Your task to perform on an android device: Add "jbl flip 4" to the cart on newegg Image 0: 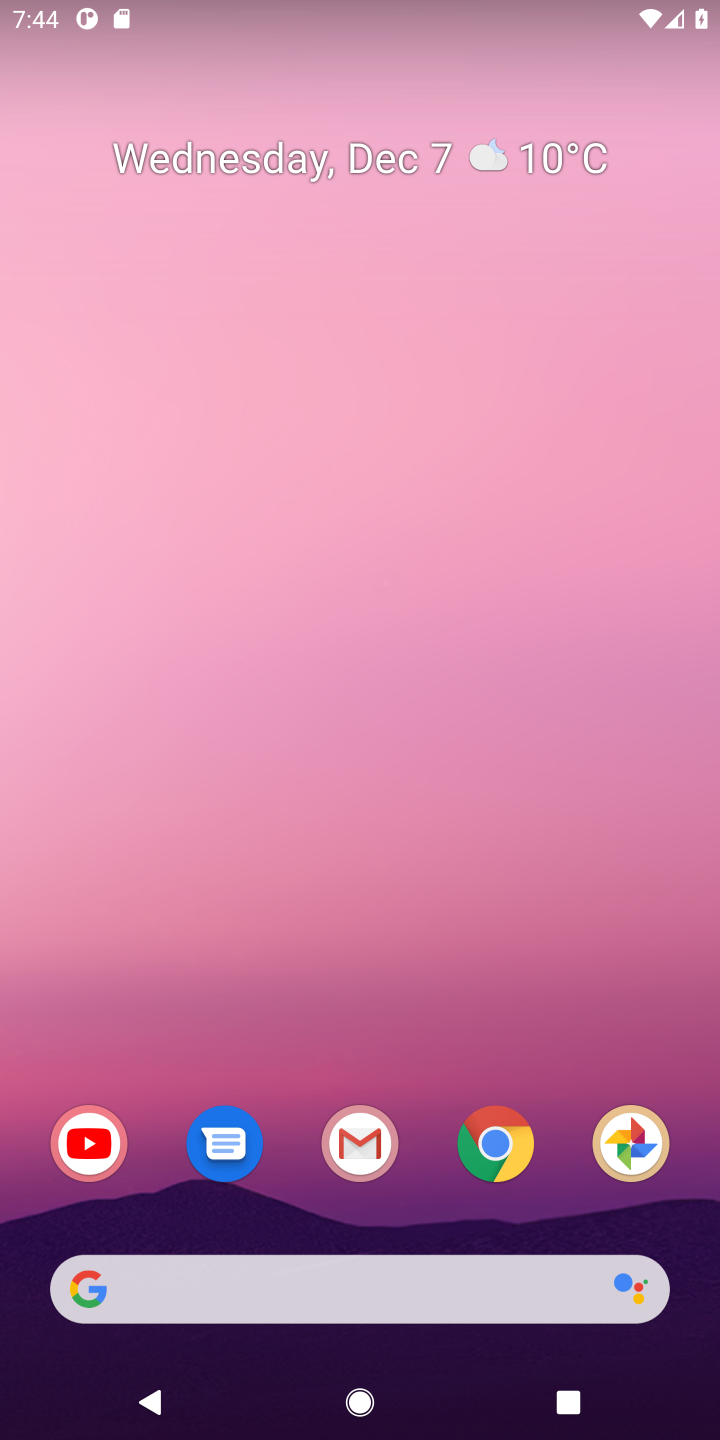
Step 0: press home button
Your task to perform on an android device: Add "jbl flip 4" to the cart on newegg Image 1: 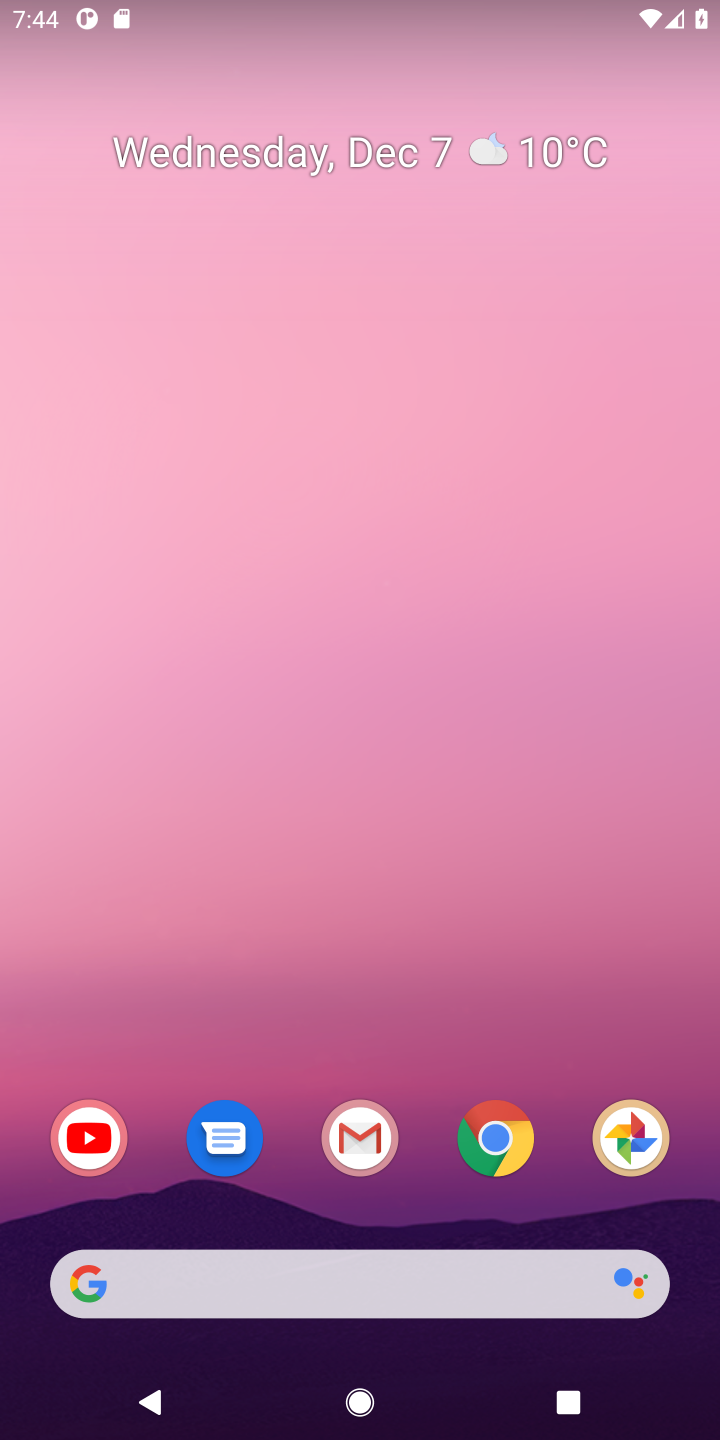
Step 1: click (129, 1280)
Your task to perform on an android device: Add "jbl flip 4" to the cart on newegg Image 2: 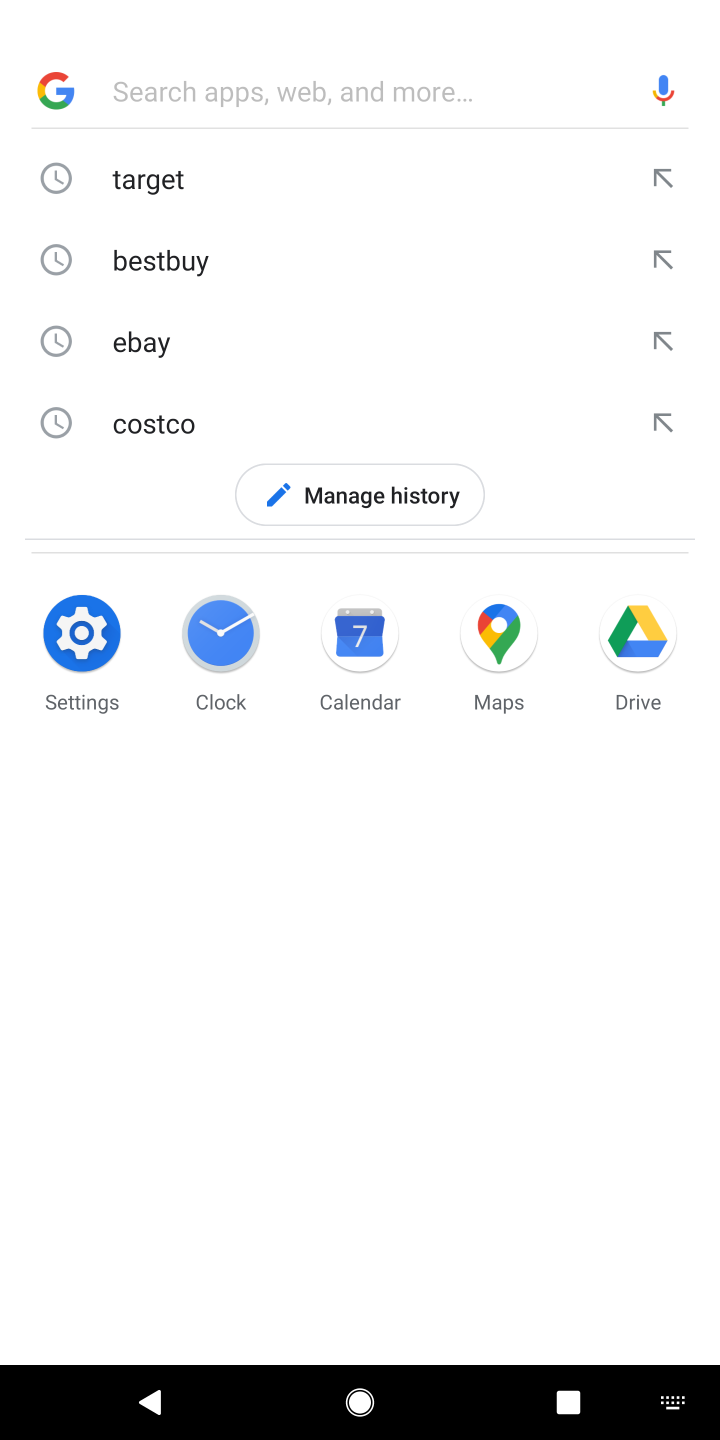
Step 2: type "newegg"
Your task to perform on an android device: Add "jbl flip 4" to the cart on newegg Image 3: 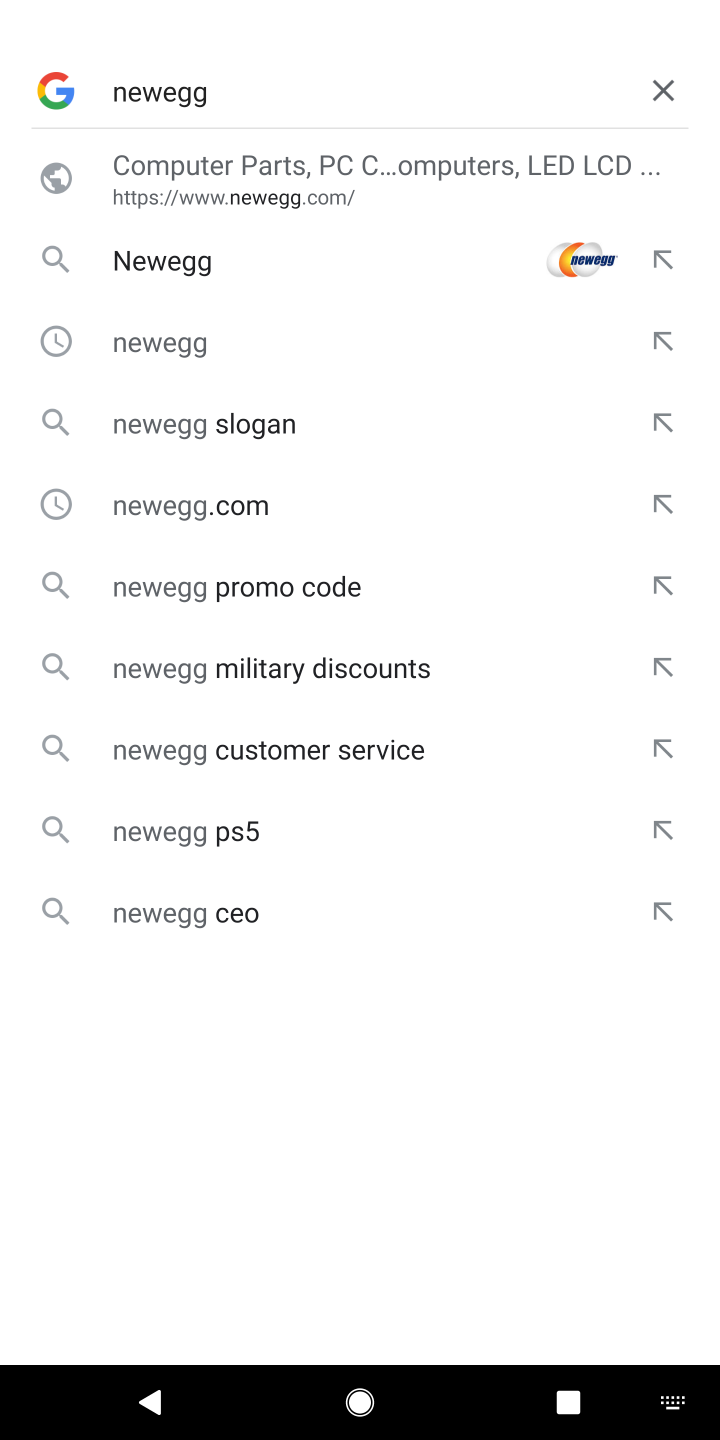
Step 3: press enter
Your task to perform on an android device: Add "jbl flip 4" to the cart on newegg Image 4: 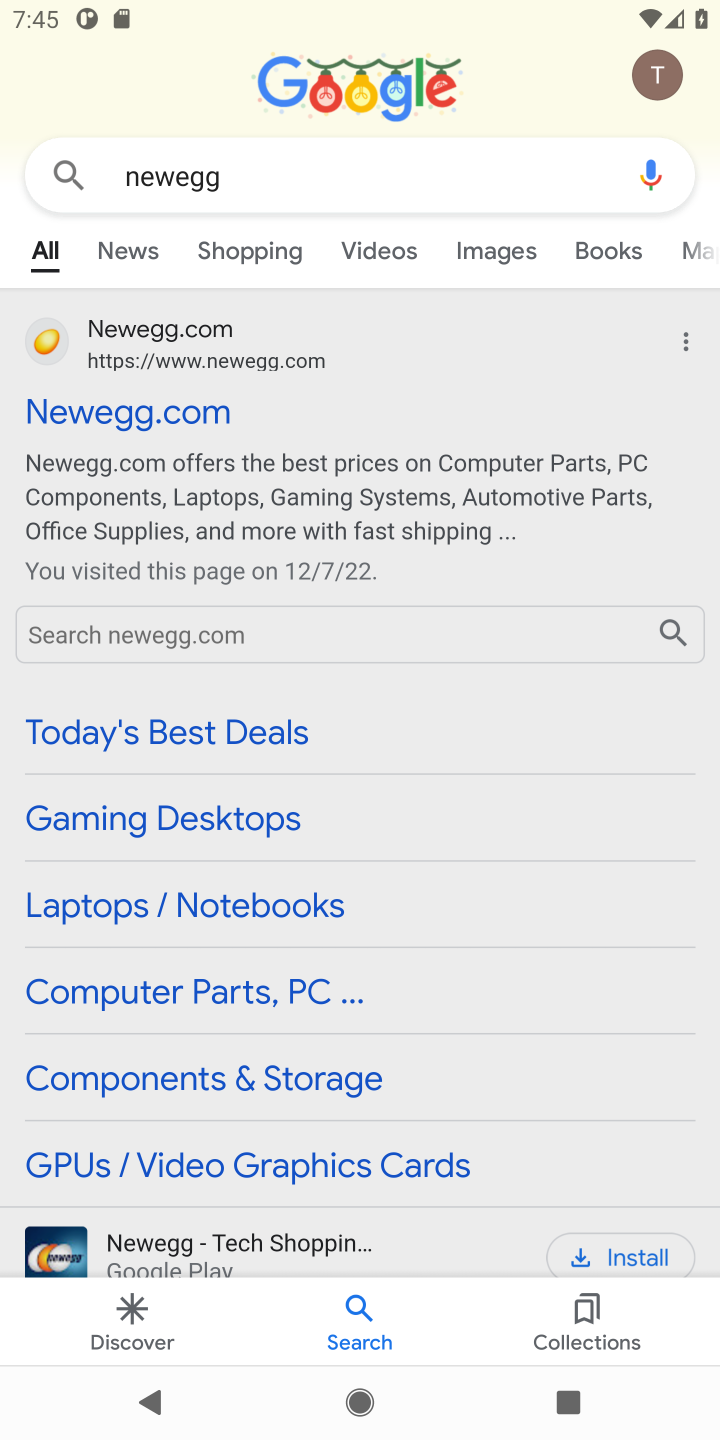
Step 4: click (124, 404)
Your task to perform on an android device: Add "jbl flip 4" to the cart on newegg Image 5: 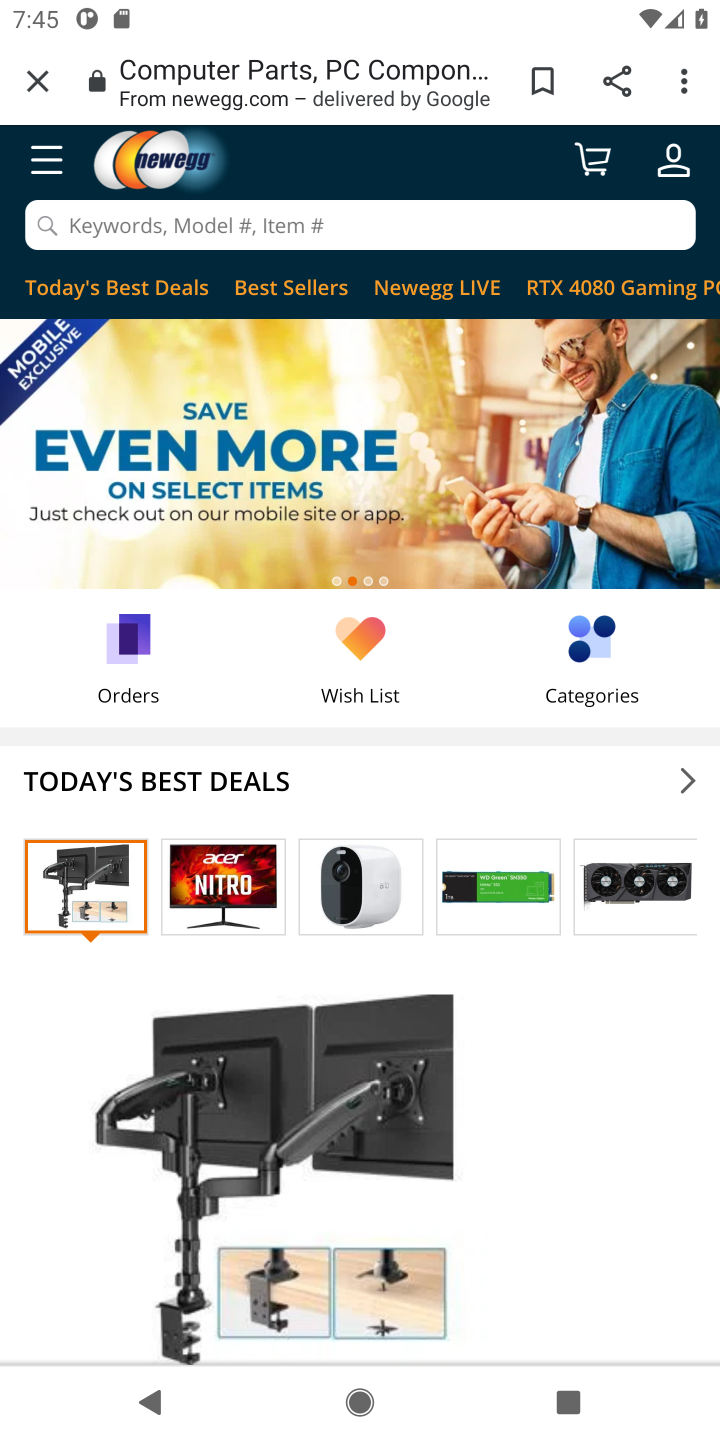
Step 5: click (279, 227)
Your task to perform on an android device: Add "jbl flip 4" to the cart on newegg Image 6: 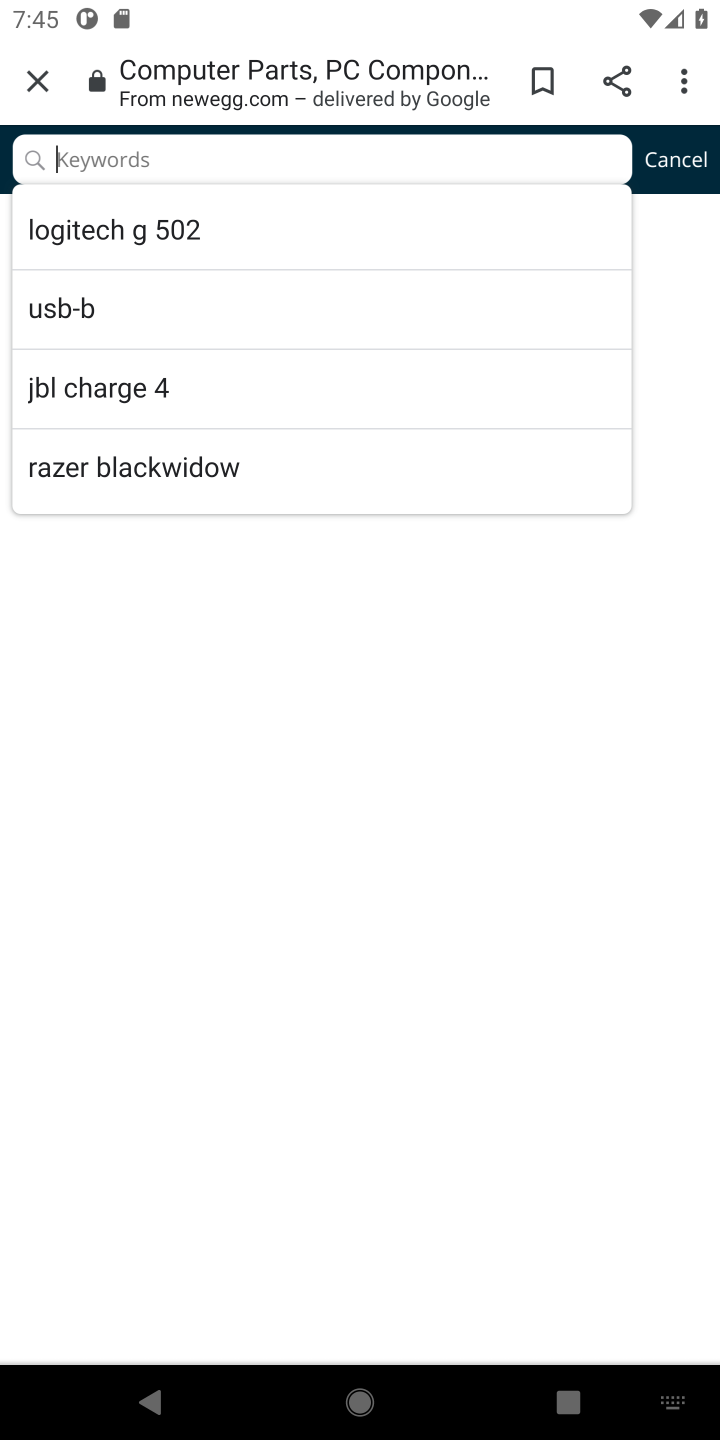
Step 6: type "jbl flip 4"
Your task to perform on an android device: Add "jbl flip 4" to the cart on newegg Image 7: 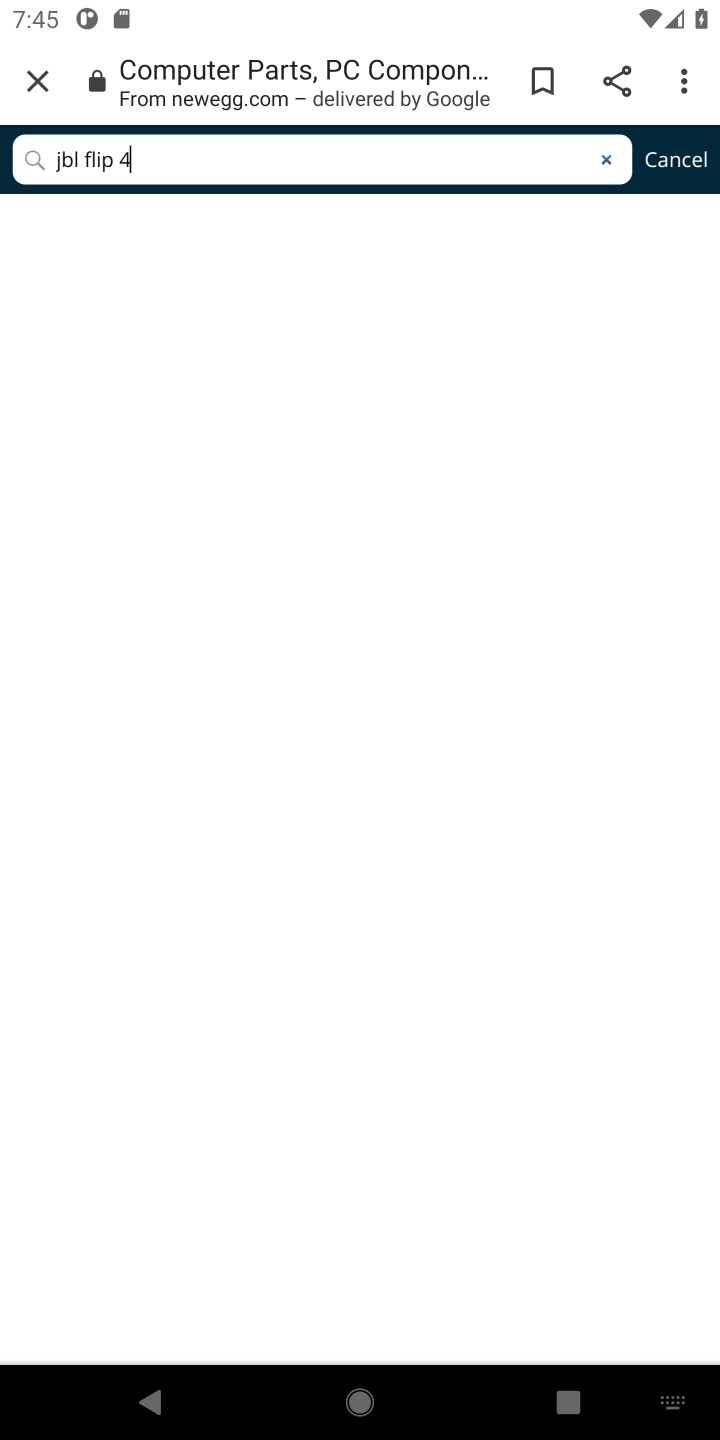
Step 7: press enter
Your task to perform on an android device: Add "jbl flip 4" to the cart on newegg Image 8: 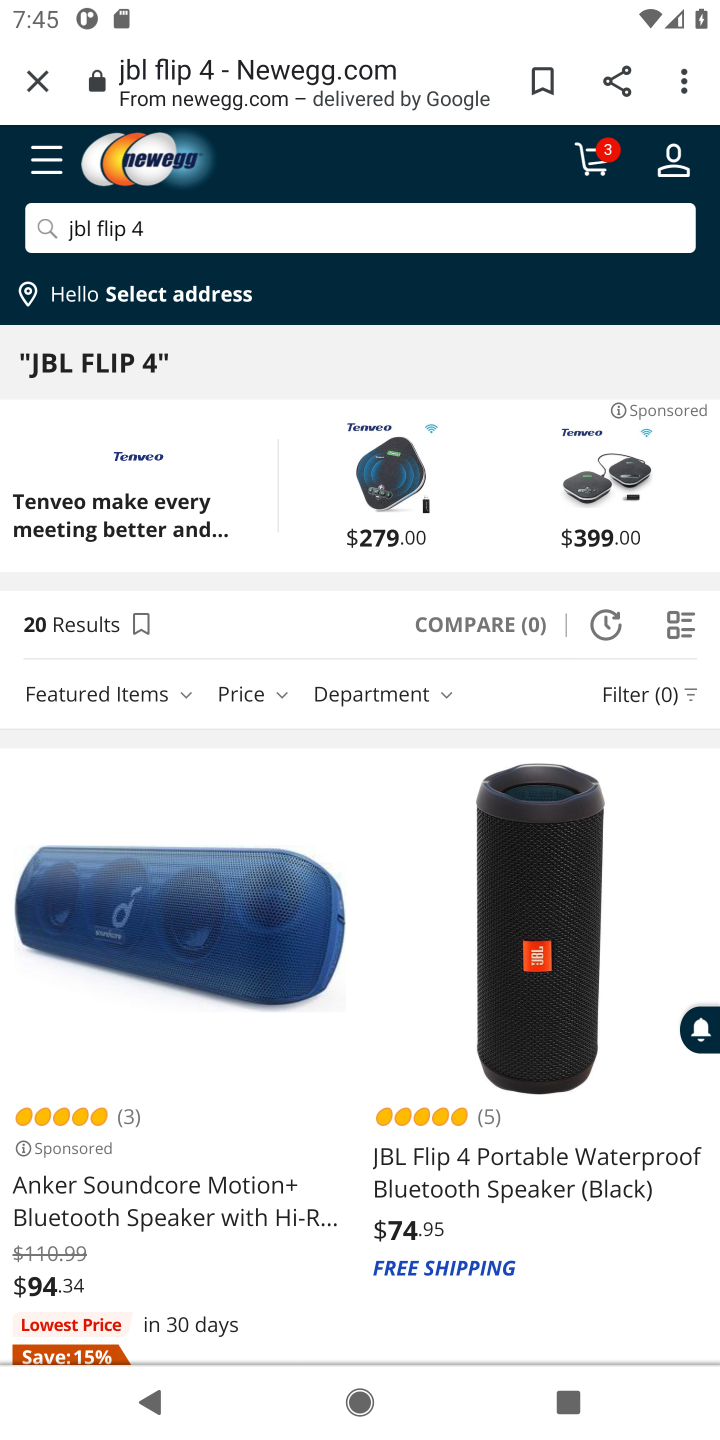
Step 8: click (499, 1172)
Your task to perform on an android device: Add "jbl flip 4" to the cart on newegg Image 9: 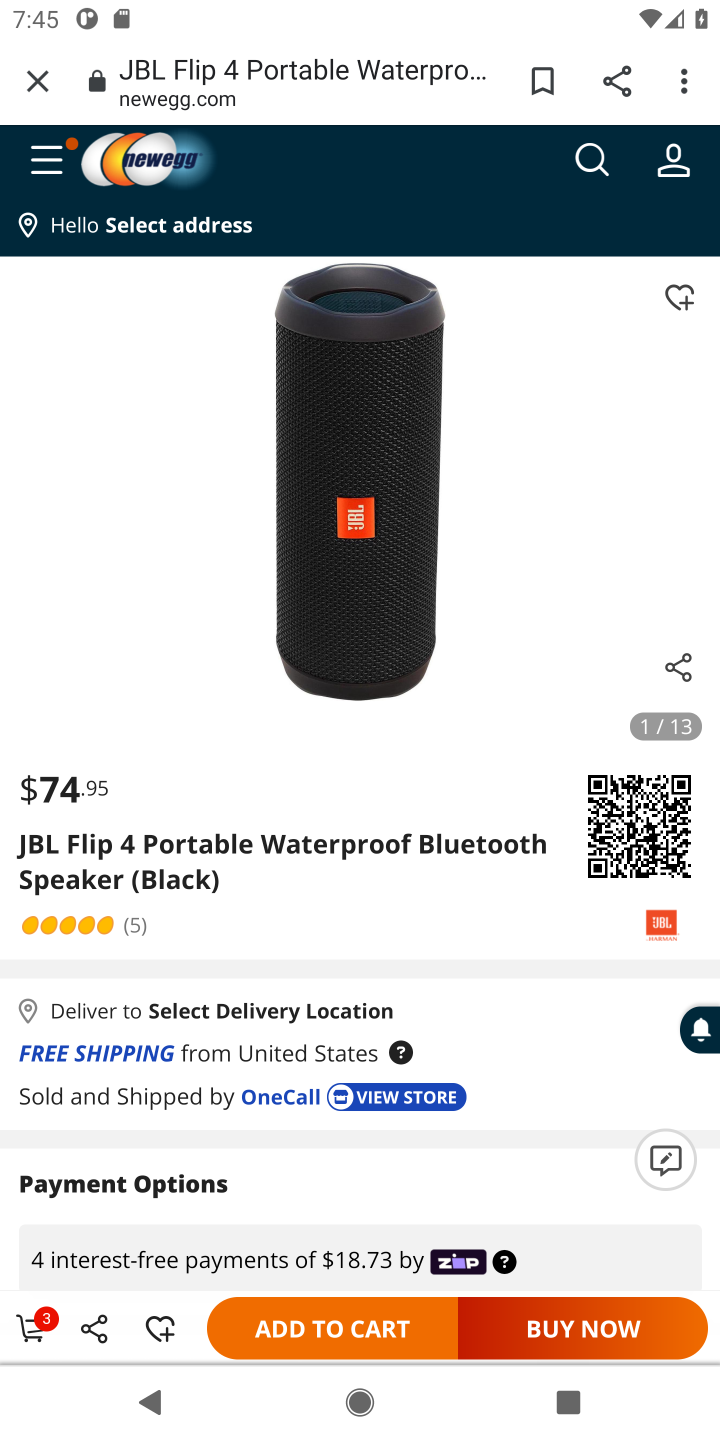
Step 9: click (311, 1334)
Your task to perform on an android device: Add "jbl flip 4" to the cart on newegg Image 10: 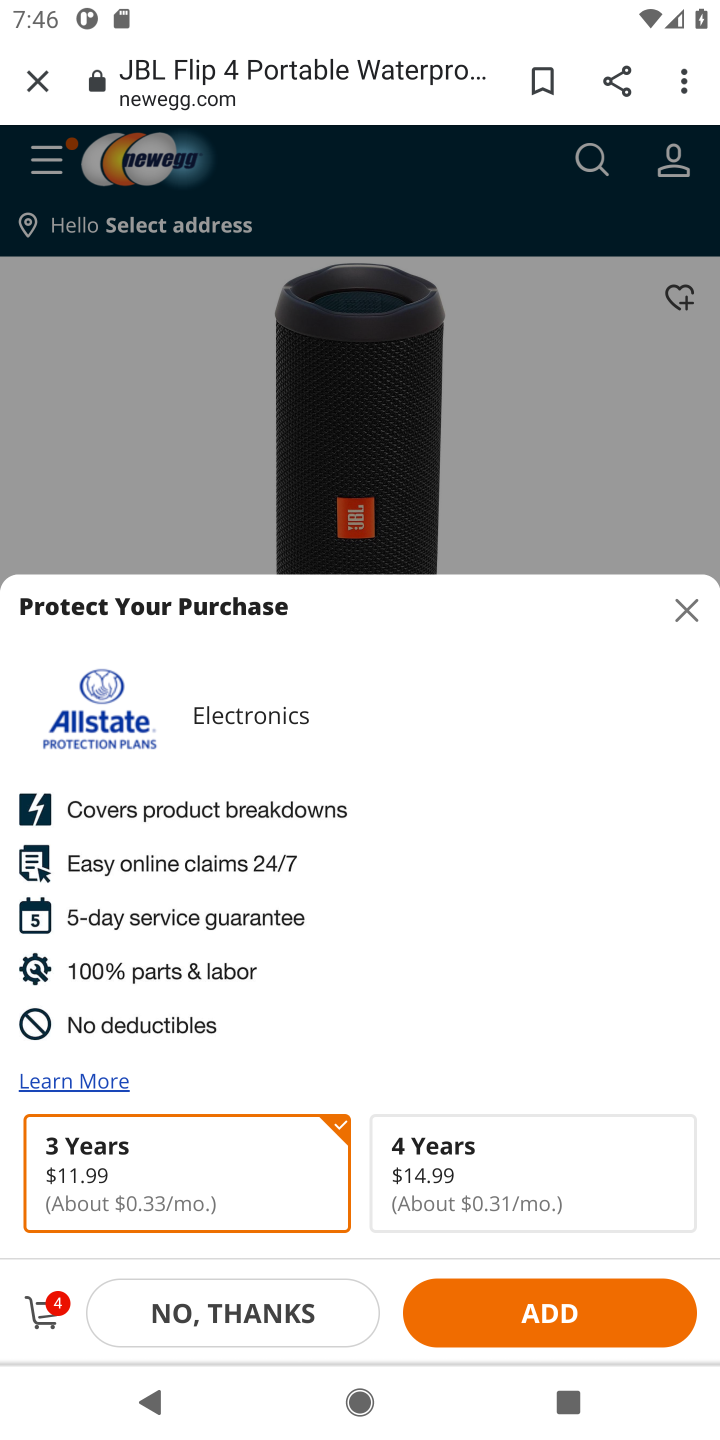
Step 10: click (239, 1320)
Your task to perform on an android device: Add "jbl flip 4" to the cart on newegg Image 11: 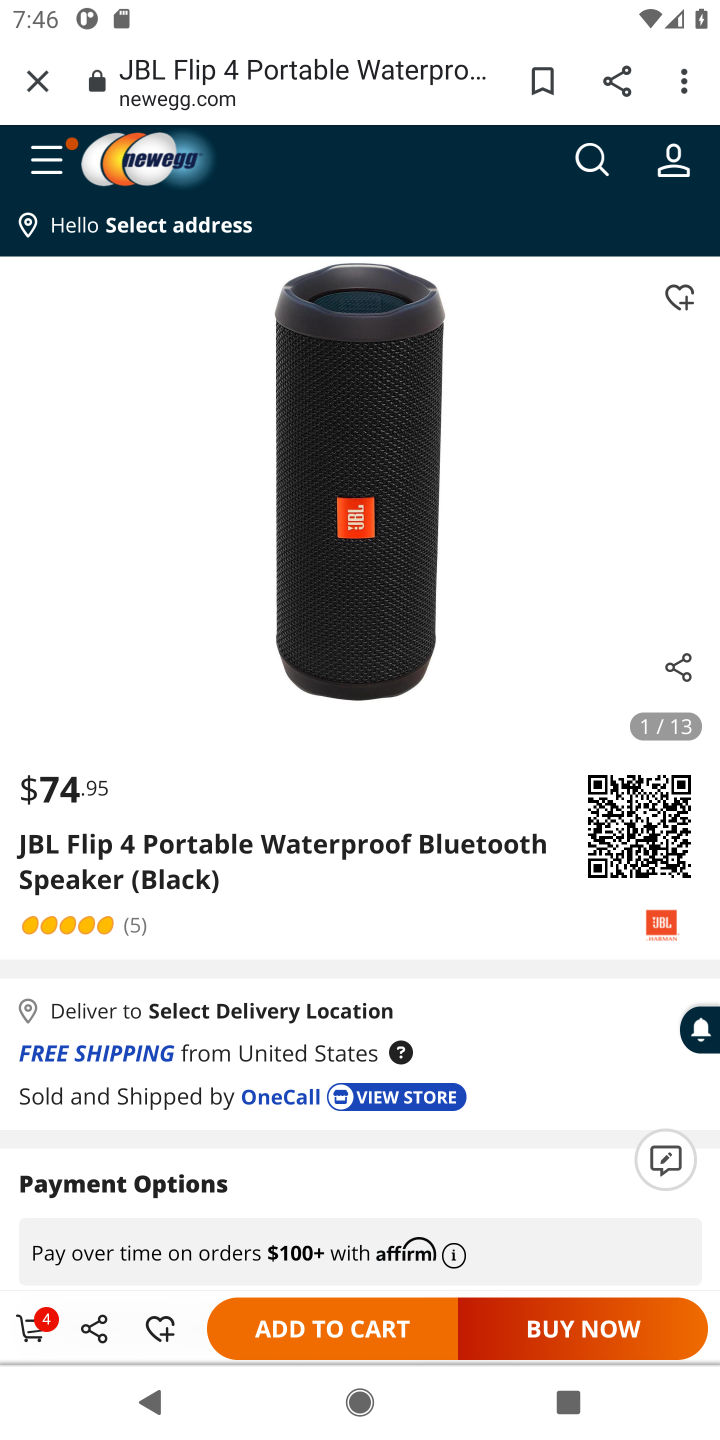
Step 11: task complete